Your task to perform on an android device: find photos in the google photos app Image 0: 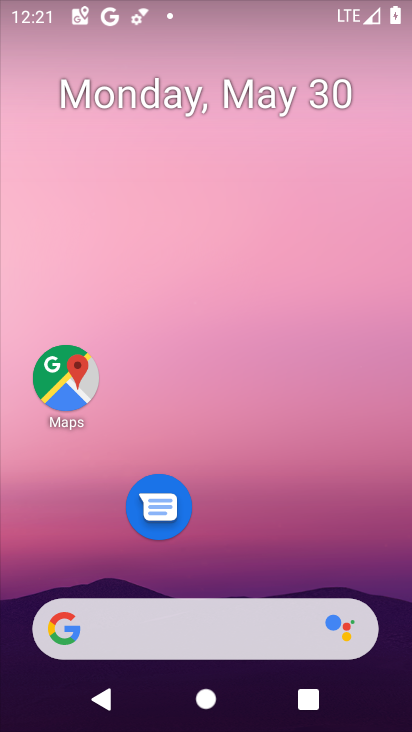
Step 0: drag from (300, 522) to (300, 66)
Your task to perform on an android device: find photos in the google photos app Image 1: 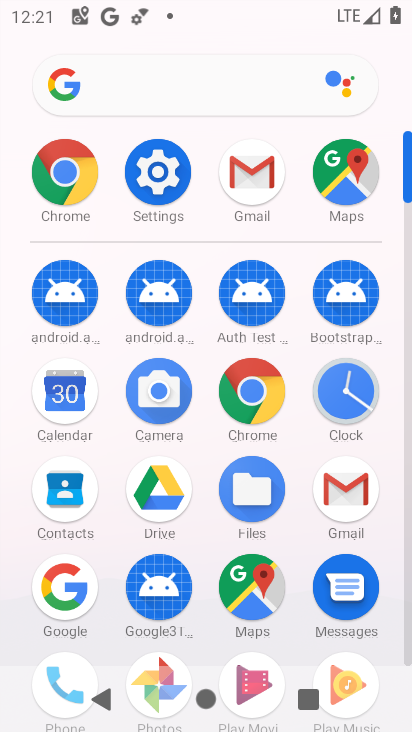
Step 1: drag from (214, 285) to (225, 32)
Your task to perform on an android device: find photos in the google photos app Image 2: 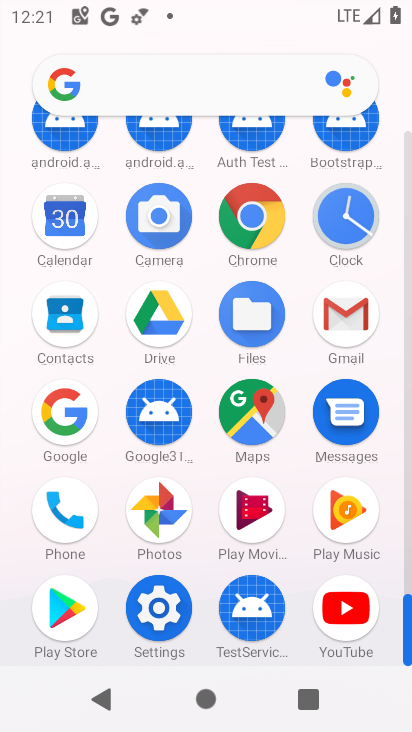
Step 2: click (156, 507)
Your task to perform on an android device: find photos in the google photos app Image 3: 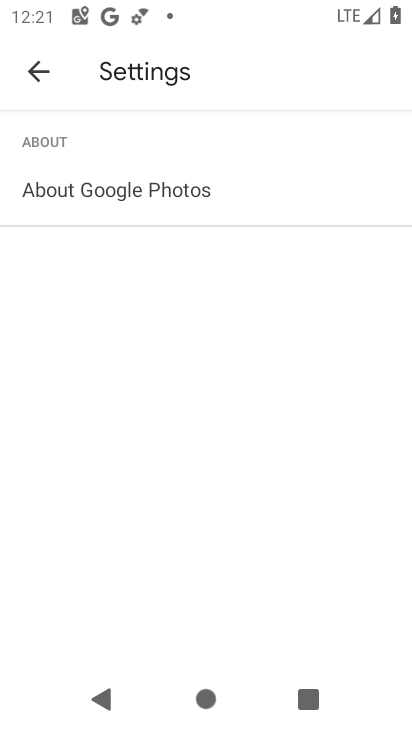
Step 3: click (30, 73)
Your task to perform on an android device: find photos in the google photos app Image 4: 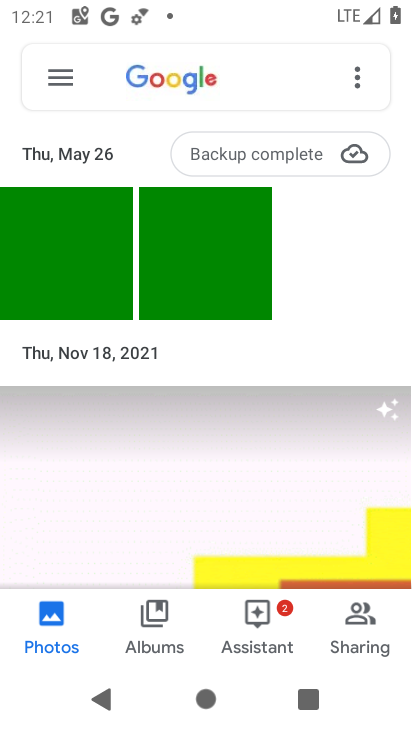
Step 4: click (46, 601)
Your task to perform on an android device: find photos in the google photos app Image 5: 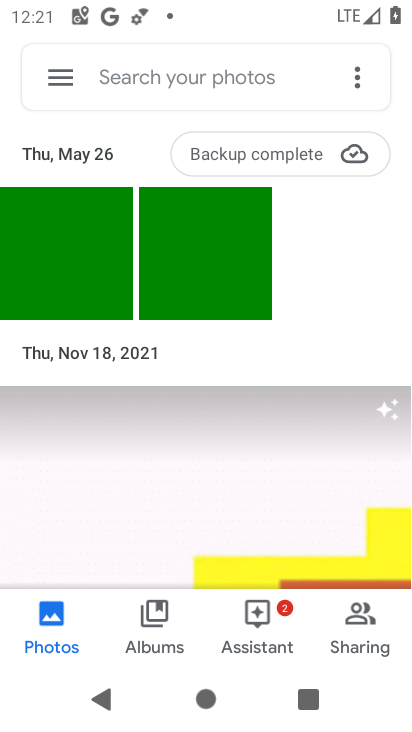
Step 5: task complete